Your task to perform on an android device: Go to internet settings Image 0: 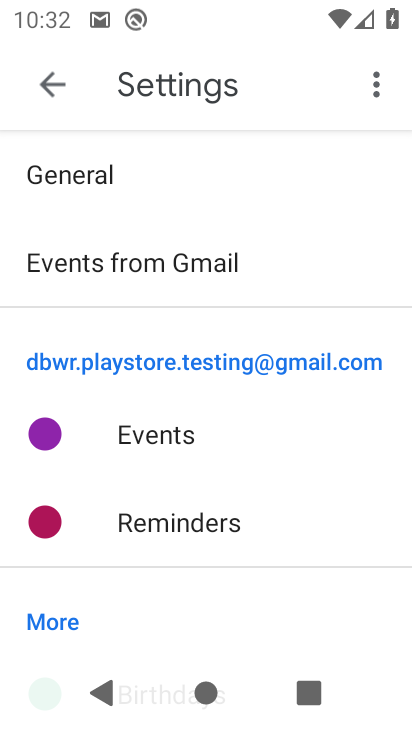
Step 0: press home button
Your task to perform on an android device: Go to internet settings Image 1: 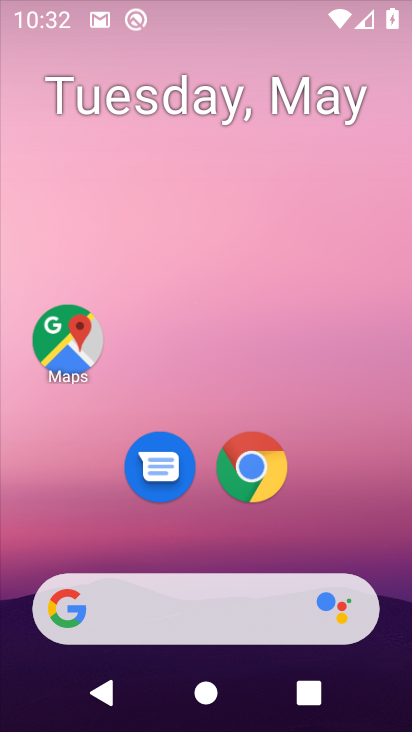
Step 1: drag from (249, 570) to (271, 23)
Your task to perform on an android device: Go to internet settings Image 2: 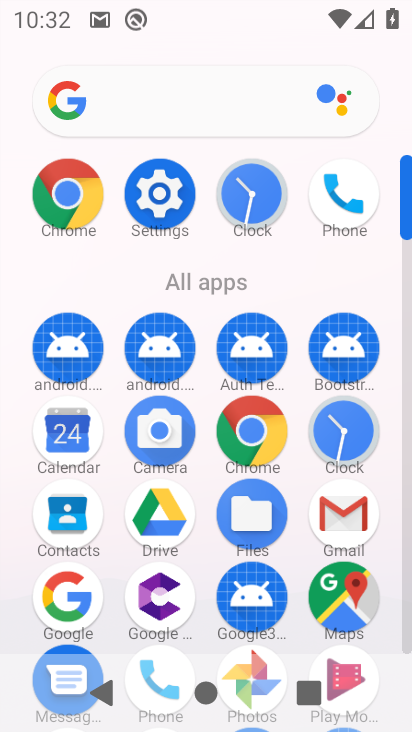
Step 2: click (140, 204)
Your task to perform on an android device: Go to internet settings Image 3: 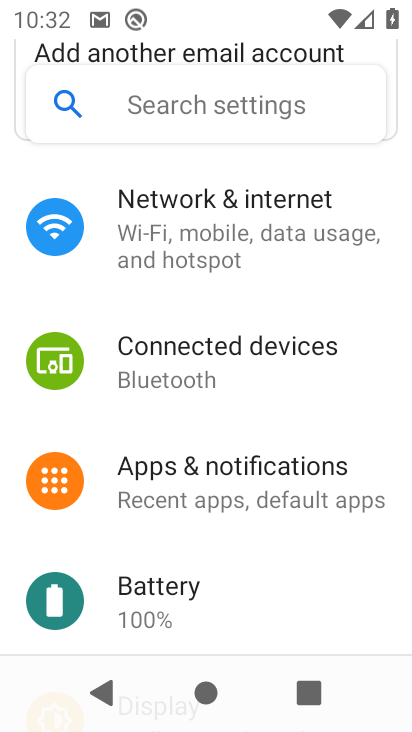
Step 3: drag from (204, 267) to (279, 608)
Your task to perform on an android device: Go to internet settings Image 4: 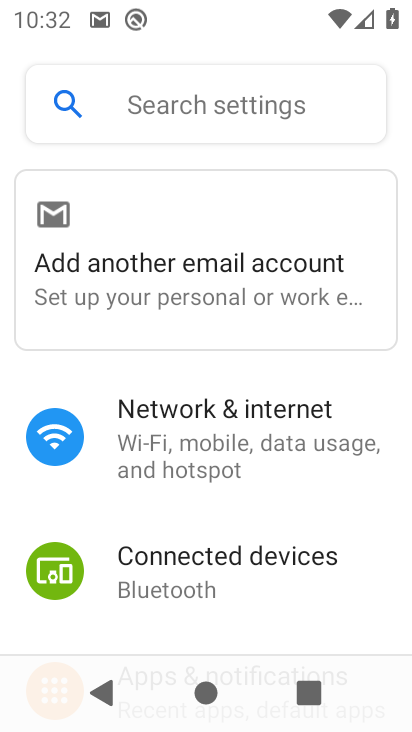
Step 4: click (181, 417)
Your task to perform on an android device: Go to internet settings Image 5: 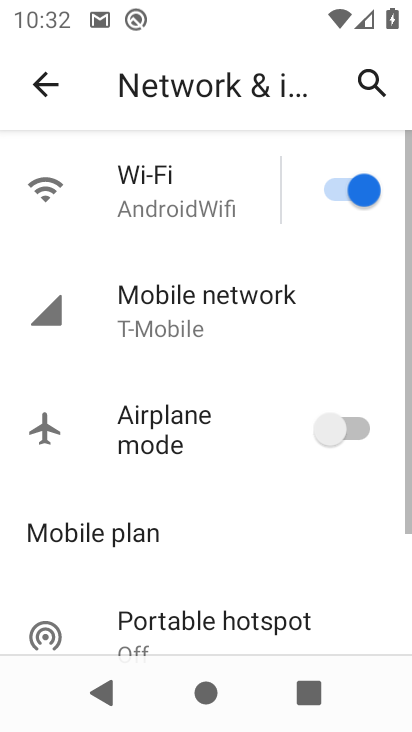
Step 5: task complete